Your task to perform on an android device: Go to Yahoo.com Image 0: 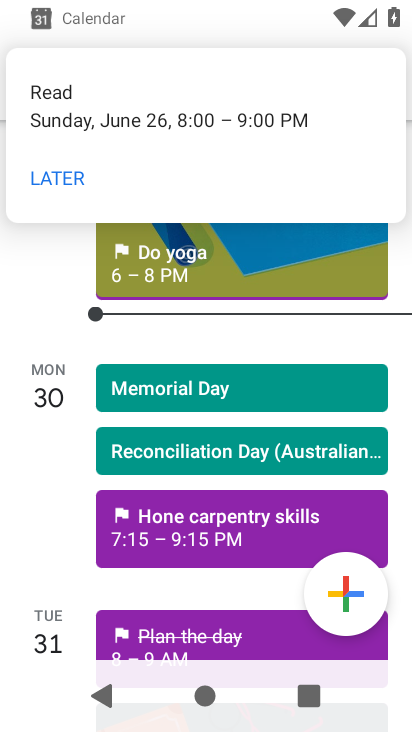
Step 0: press home button
Your task to perform on an android device: Go to Yahoo.com Image 1: 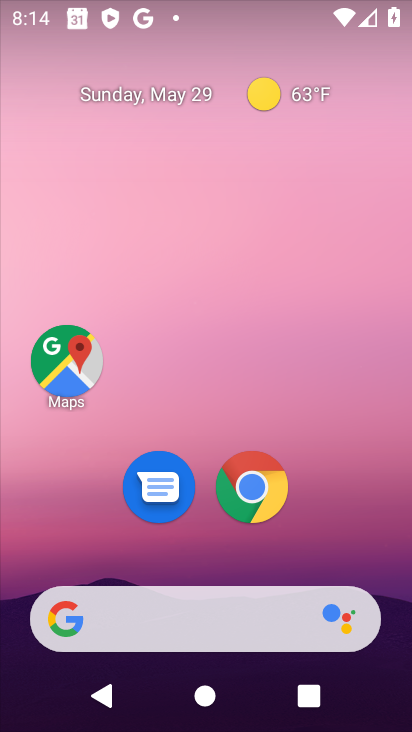
Step 1: click (252, 486)
Your task to perform on an android device: Go to Yahoo.com Image 2: 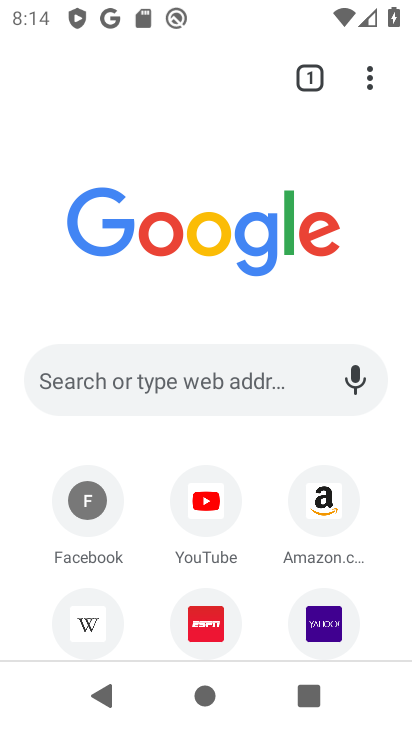
Step 2: click (219, 376)
Your task to perform on an android device: Go to Yahoo.com Image 3: 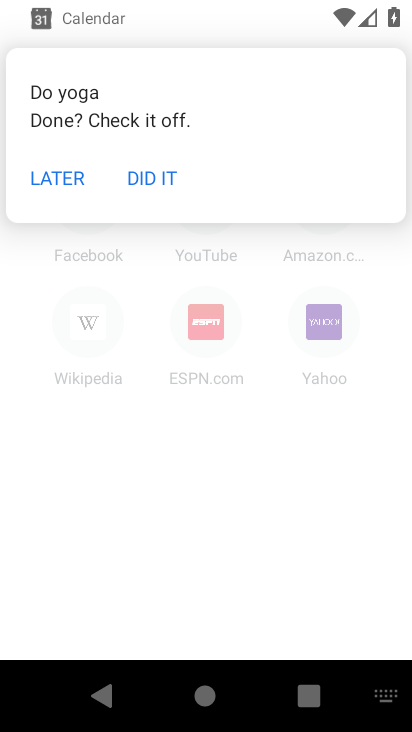
Step 3: type "Yahoo.com"
Your task to perform on an android device: Go to Yahoo.com Image 4: 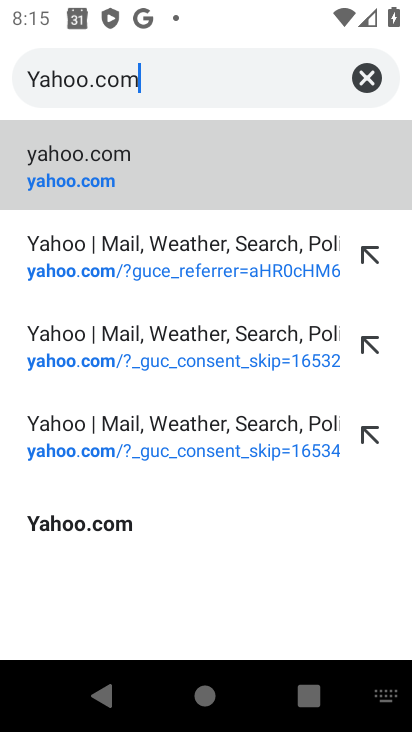
Step 4: click (61, 529)
Your task to perform on an android device: Go to Yahoo.com Image 5: 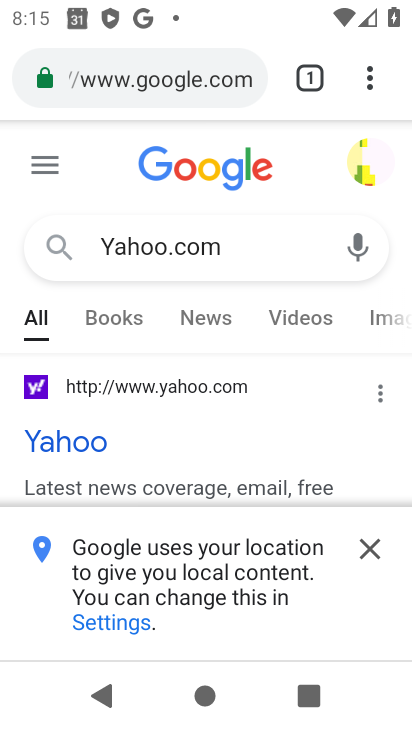
Step 5: click (370, 549)
Your task to perform on an android device: Go to Yahoo.com Image 6: 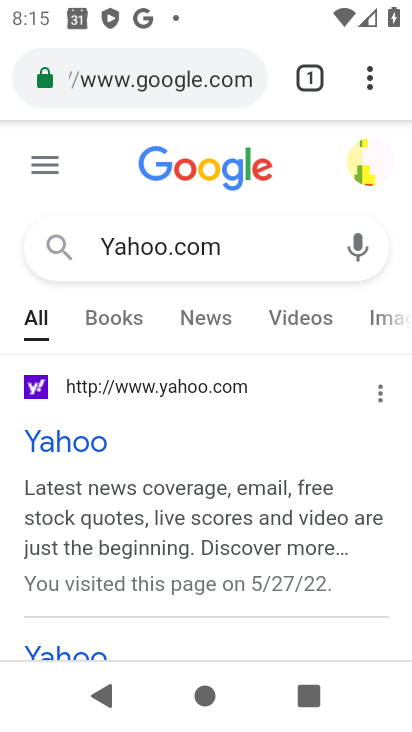
Step 6: click (62, 455)
Your task to perform on an android device: Go to Yahoo.com Image 7: 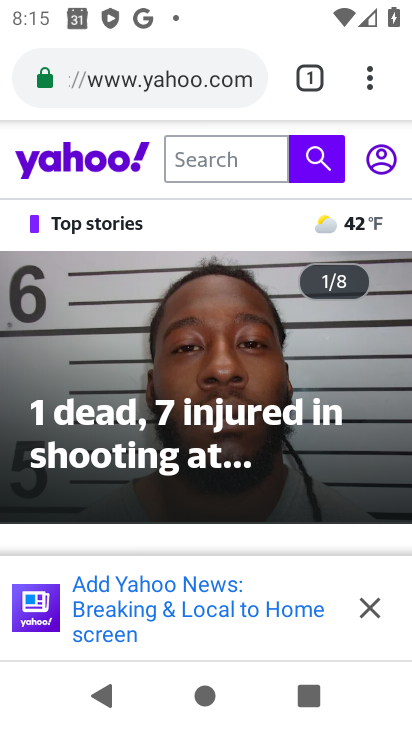
Step 7: task complete